Your task to perform on an android device: change the clock display to show seconds Image 0: 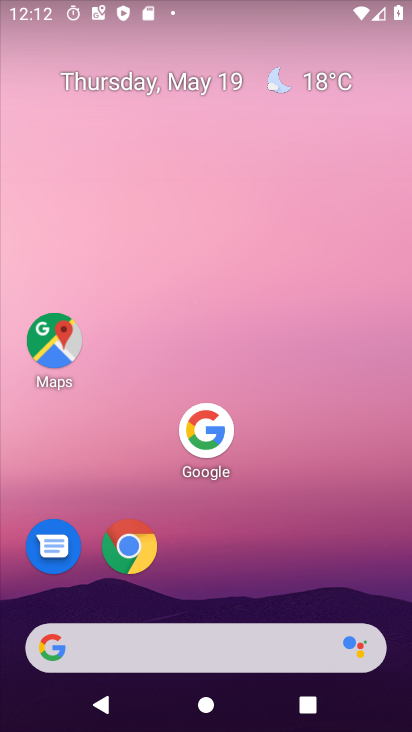
Step 0: drag from (235, 557) to (279, 134)
Your task to perform on an android device: change the clock display to show seconds Image 1: 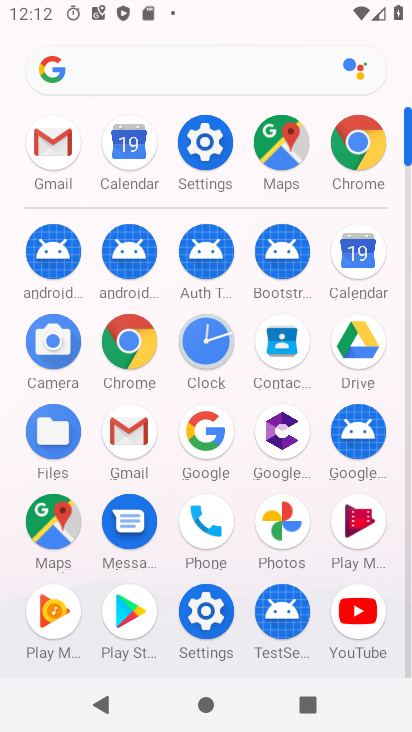
Step 1: click (220, 345)
Your task to perform on an android device: change the clock display to show seconds Image 2: 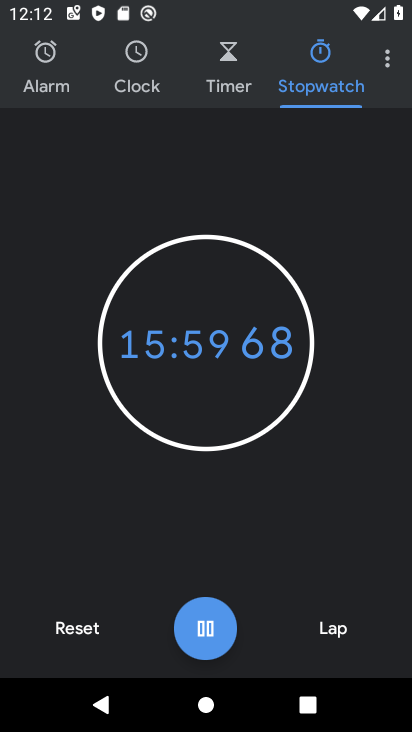
Step 2: click (378, 61)
Your task to perform on an android device: change the clock display to show seconds Image 3: 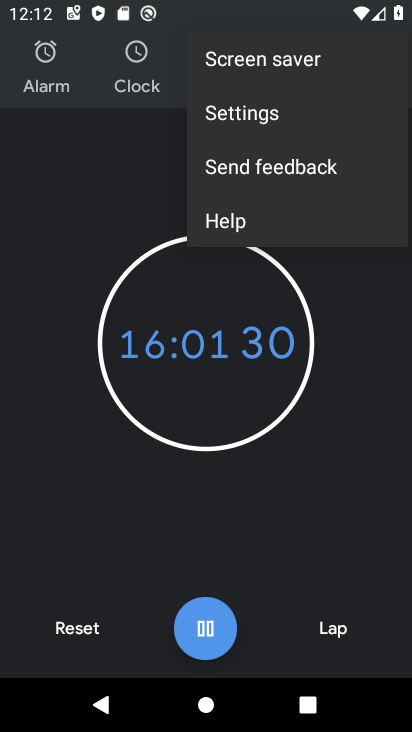
Step 3: click (264, 120)
Your task to perform on an android device: change the clock display to show seconds Image 4: 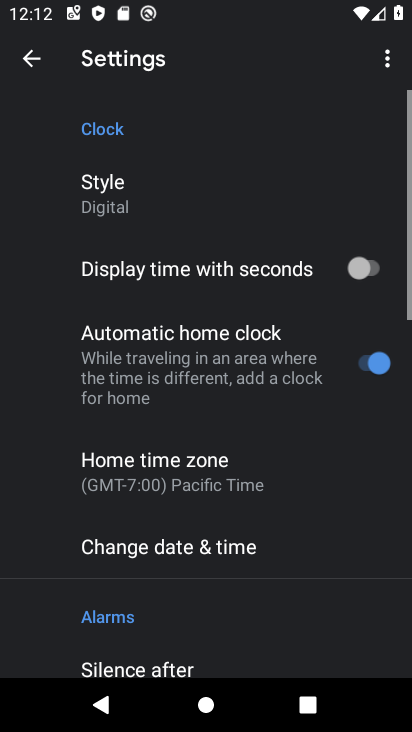
Step 4: click (360, 281)
Your task to perform on an android device: change the clock display to show seconds Image 5: 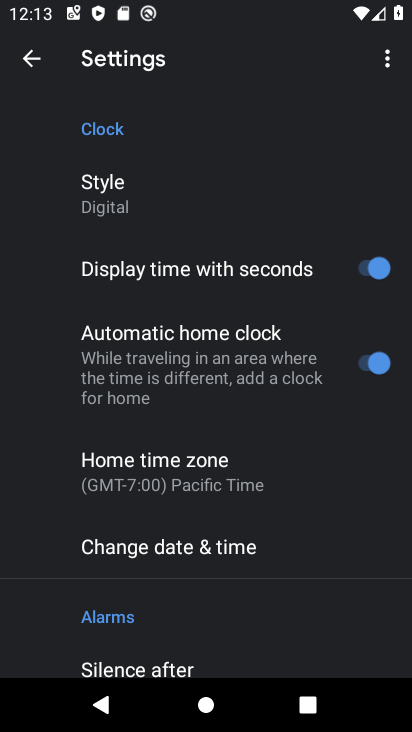
Step 5: task complete